Your task to perform on an android device: change the clock display to analog Image 0: 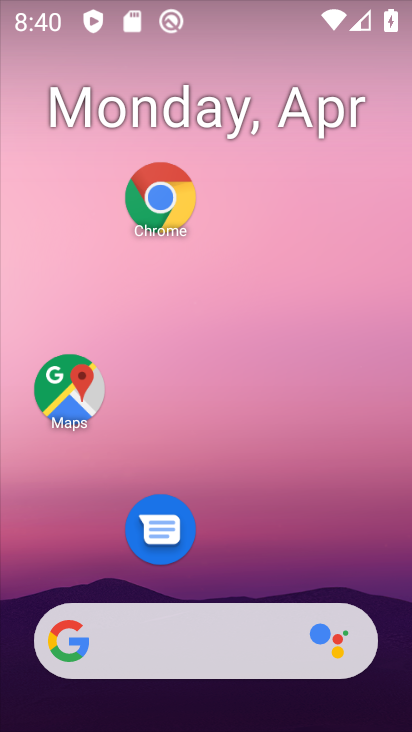
Step 0: drag from (262, 444) to (287, 116)
Your task to perform on an android device: change the clock display to analog Image 1: 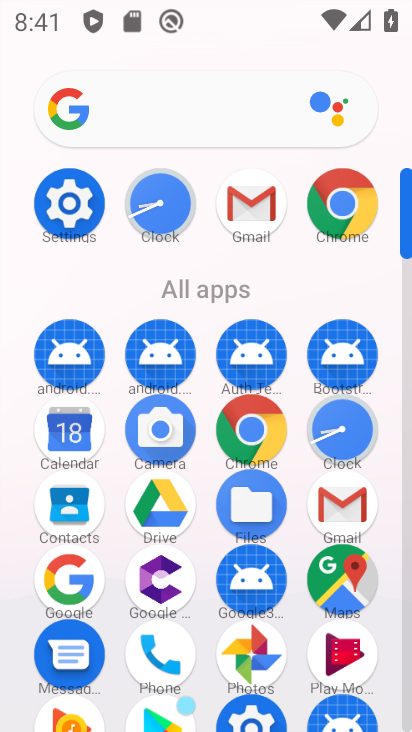
Step 1: click (334, 435)
Your task to perform on an android device: change the clock display to analog Image 2: 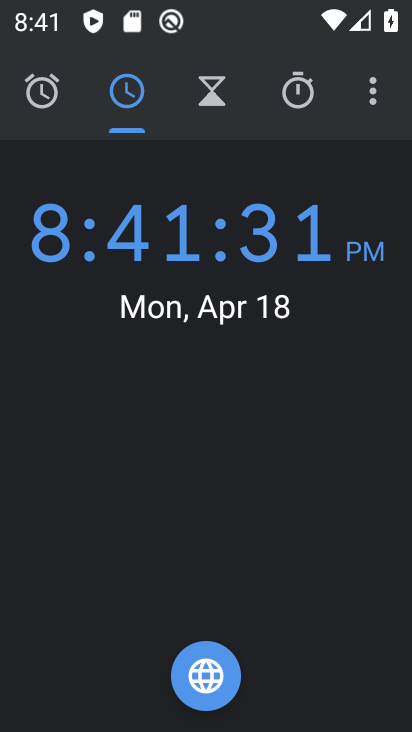
Step 2: click (382, 82)
Your task to perform on an android device: change the clock display to analog Image 3: 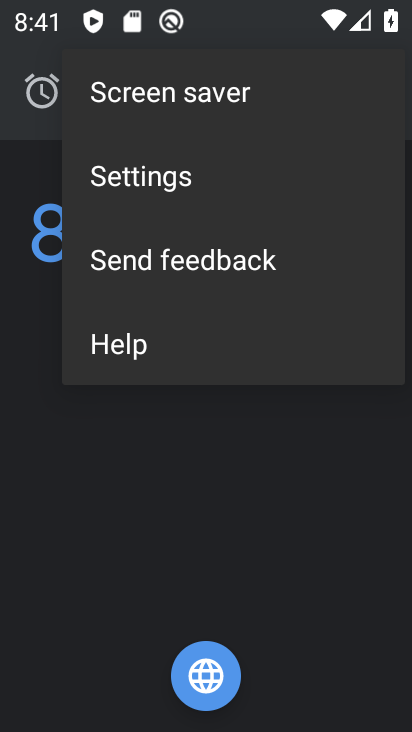
Step 3: click (178, 187)
Your task to perform on an android device: change the clock display to analog Image 4: 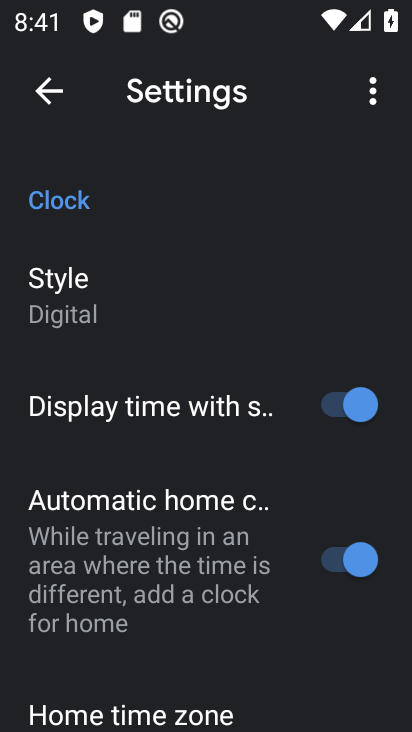
Step 4: click (129, 281)
Your task to perform on an android device: change the clock display to analog Image 5: 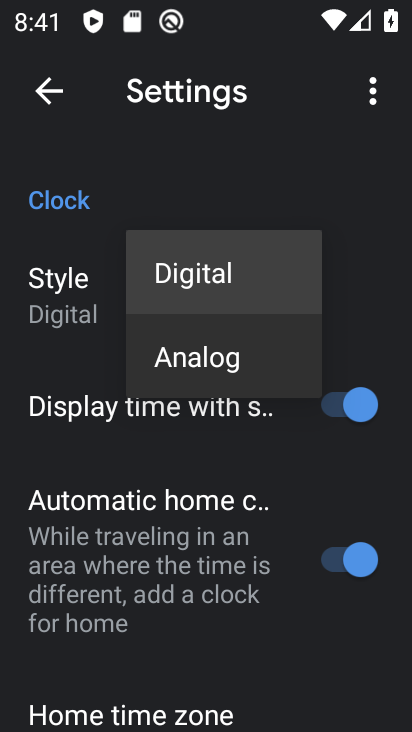
Step 5: click (184, 361)
Your task to perform on an android device: change the clock display to analog Image 6: 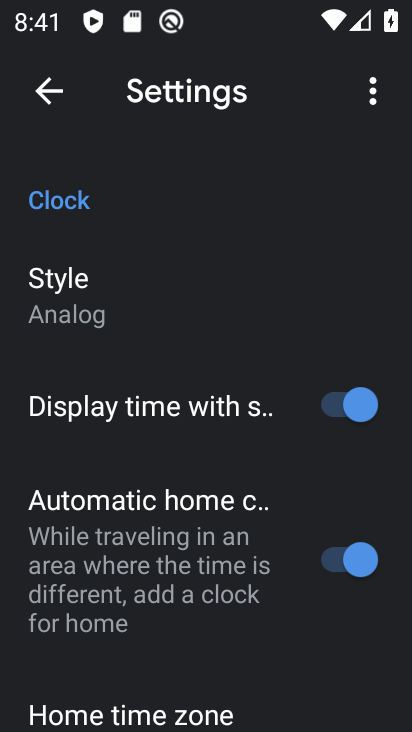
Step 6: task complete